Your task to perform on an android device: turn on the 24-hour format for clock Image 0: 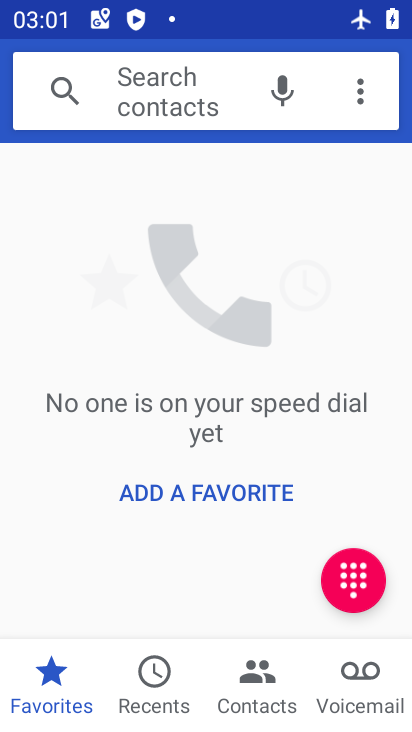
Step 0: press home button
Your task to perform on an android device: turn on the 24-hour format for clock Image 1: 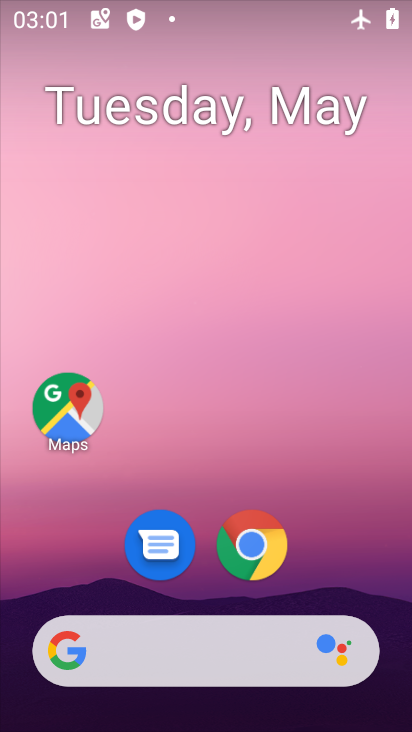
Step 1: drag from (399, 632) to (287, 104)
Your task to perform on an android device: turn on the 24-hour format for clock Image 2: 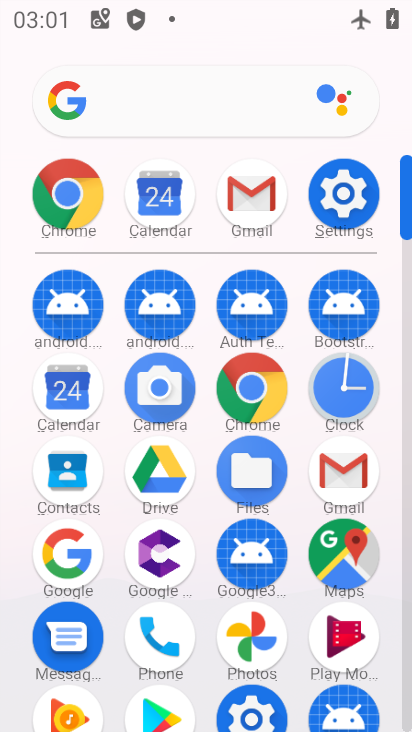
Step 2: click (341, 388)
Your task to perform on an android device: turn on the 24-hour format for clock Image 3: 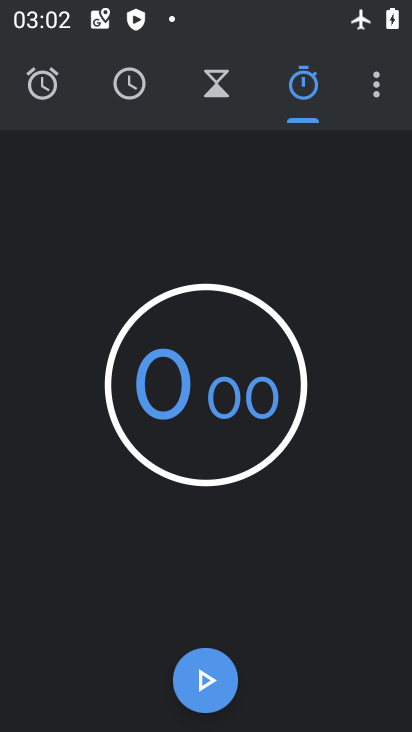
Step 3: click (376, 94)
Your task to perform on an android device: turn on the 24-hour format for clock Image 4: 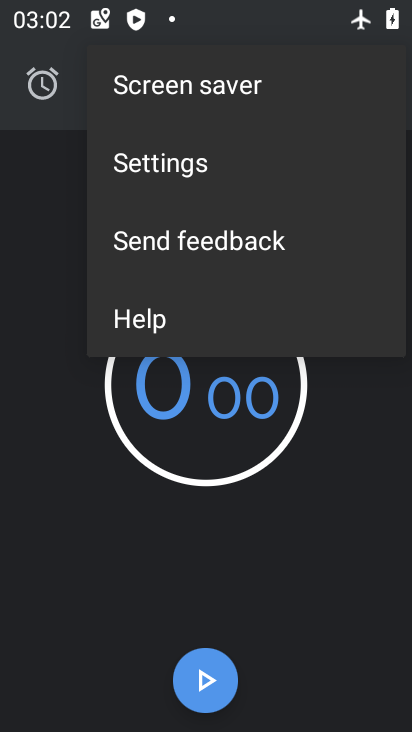
Step 4: click (152, 170)
Your task to perform on an android device: turn on the 24-hour format for clock Image 5: 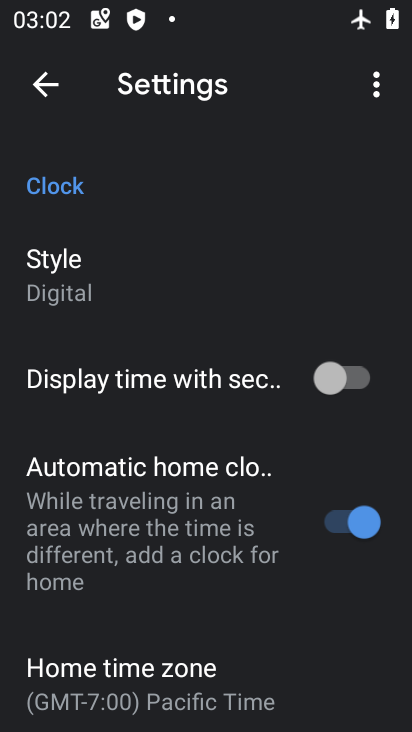
Step 5: drag from (276, 570) to (210, 158)
Your task to perform on an android device: turn on the 24-hour format for clock Image 6: 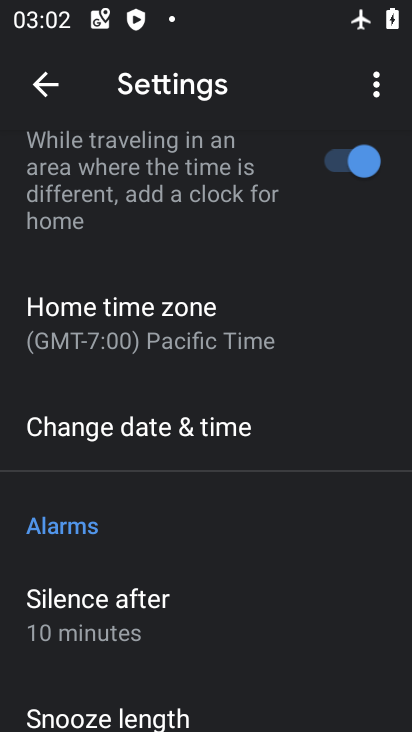
Step 6: click (134, 429)
Your task to perform on an android device: turn on the 24-hour format for clock Image 7: 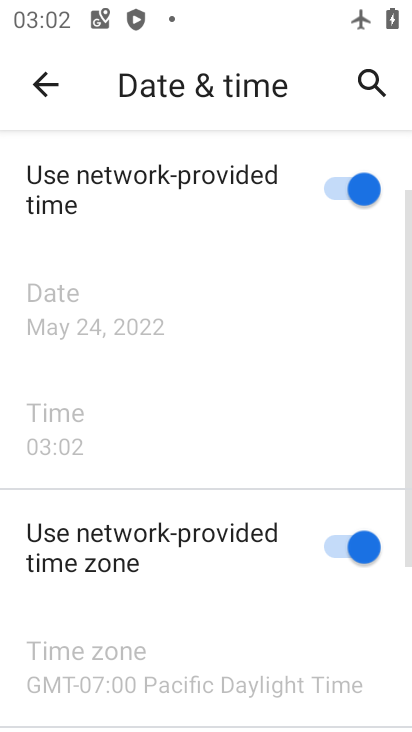
Step 7: task complete